Your task to perform on an android device: toggle pop-ups in chrome Image 0: 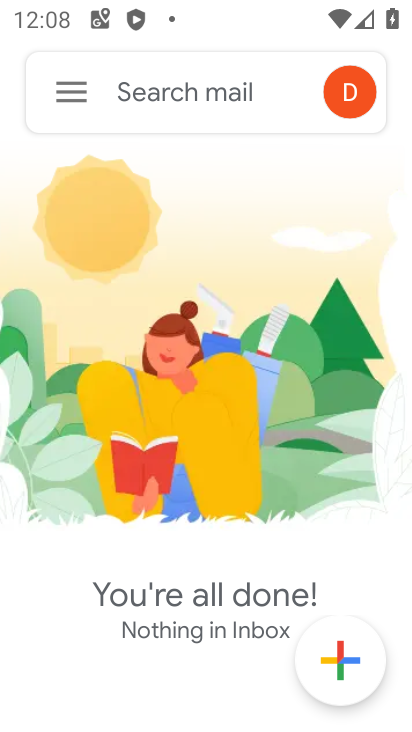
Step 0: press back button
Your task to perform on an android device: toggle pop-ups in chrome Image 1: 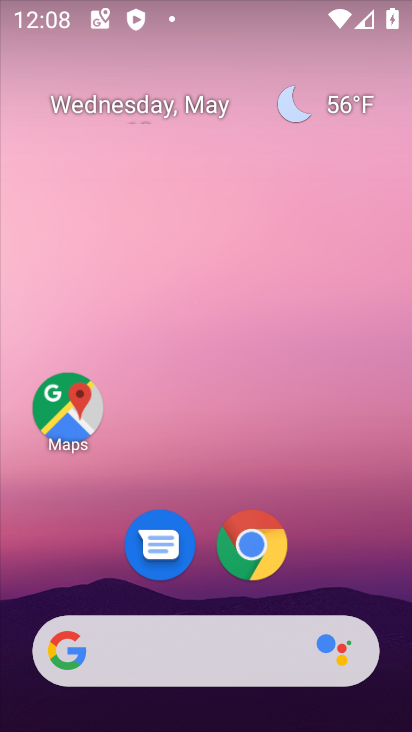
Step 1: click (255, 546)
Your task to perform on an android device: toggle pop-ups in chrome Image 2: 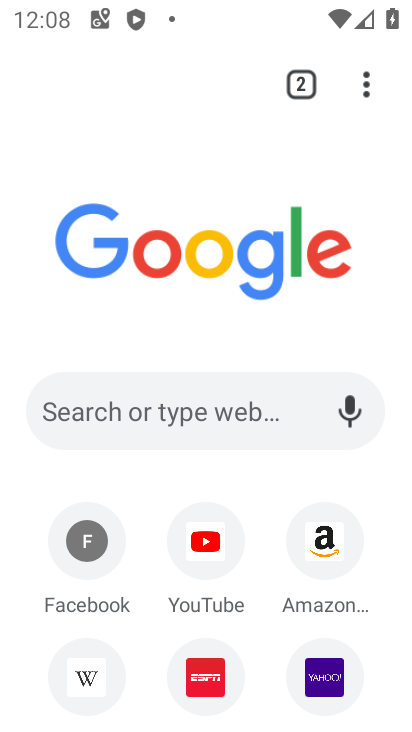
Step 2: click (366, 81)
Your task to perform on an android device: toggle pop-ups in chrome Image 3: 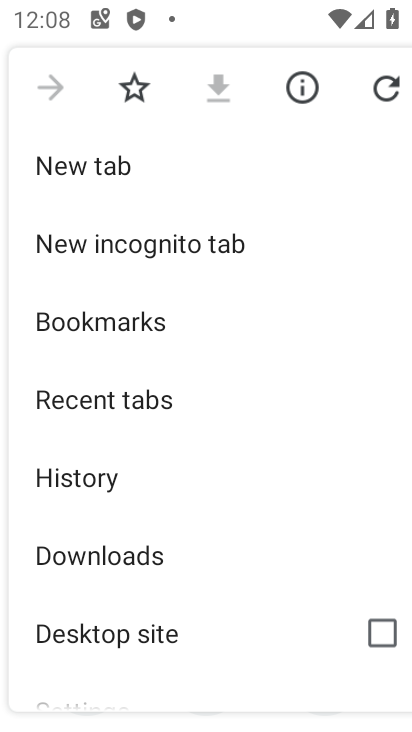
Step 3: drag from (147, 481) to (202, 381)
Your task to perform on an android device: toggle pop-ups in chrome Image 4: 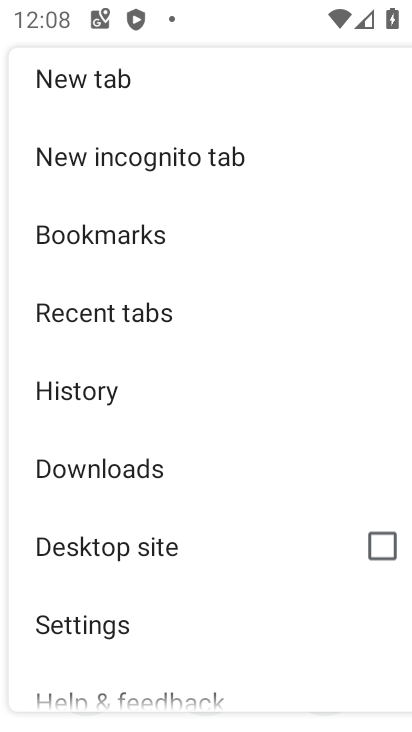
Step 4: drag from (123, 511) to (170, 361)
Your task to perform on an android device: toggle pop-ups in chrome Image 5: 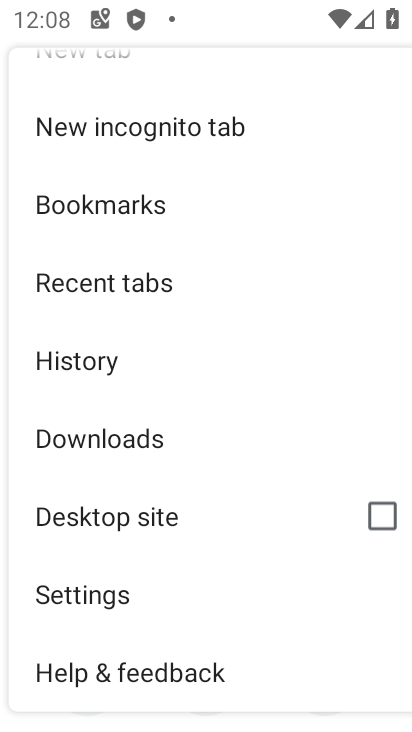
Step 5: click (85, 596)
Your task to perform on an android device: toggle pop-ups in chrome Image 6: 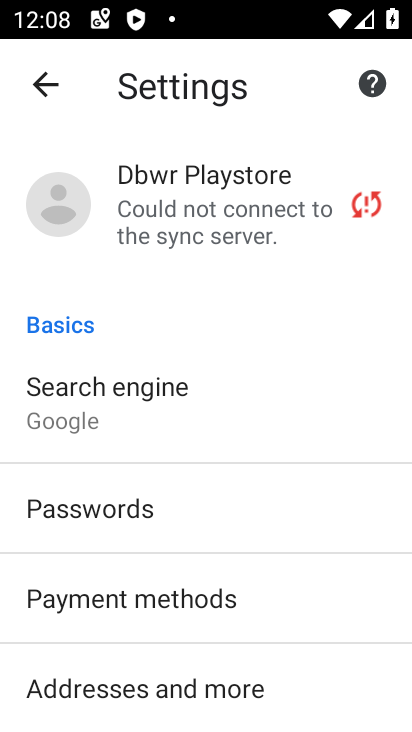
Step 6: drag from (168, 583) to (223, 354)
Your task to perform on an android device: toggle pop-ups in chrome Image 7: 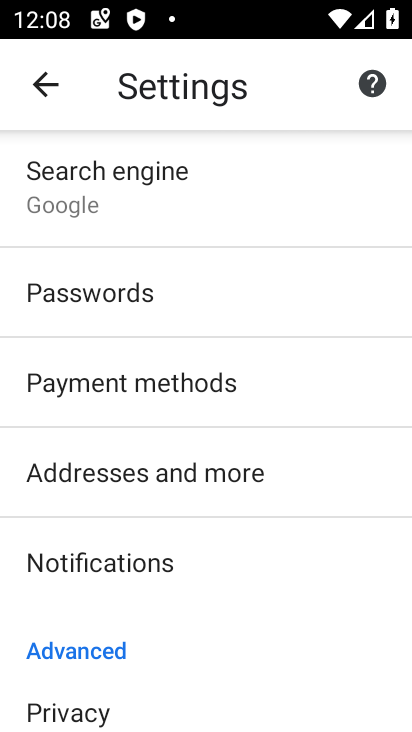
Step 7: drag from (189, 604) to (250, 382)
Your task to perform on an android device: toggle pop-ups in chrome Image 8: 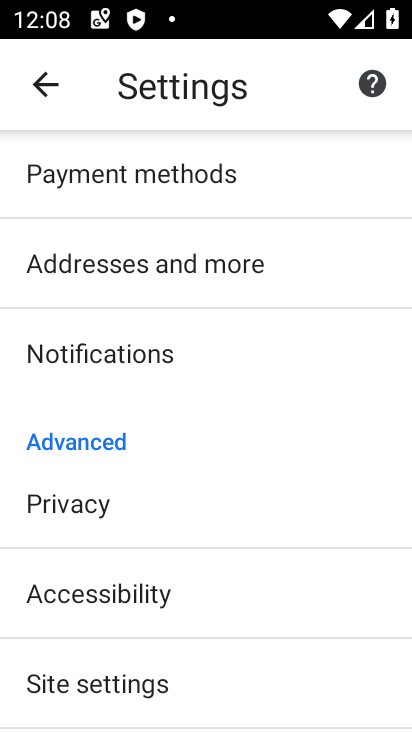
Step 8: drag from (109, 616) to (176, 439)
Your task to perform on an android device: toggle pop-ups in chrome Image 9: 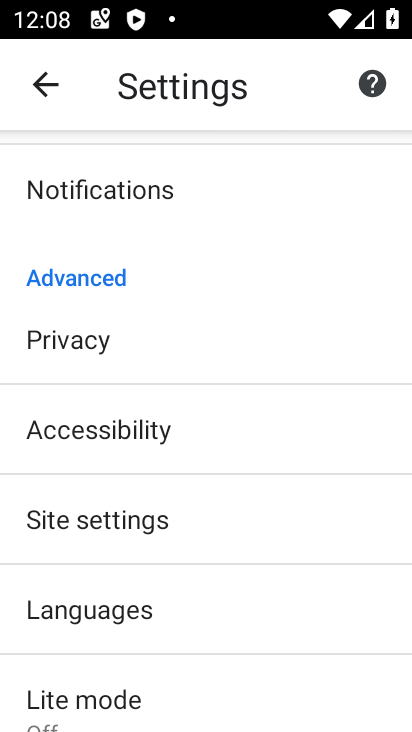
Step 9: drag from (128, 564) to (219, 438)
Your task to perform on an android device: toggle pop-ups in chrome Image 10: 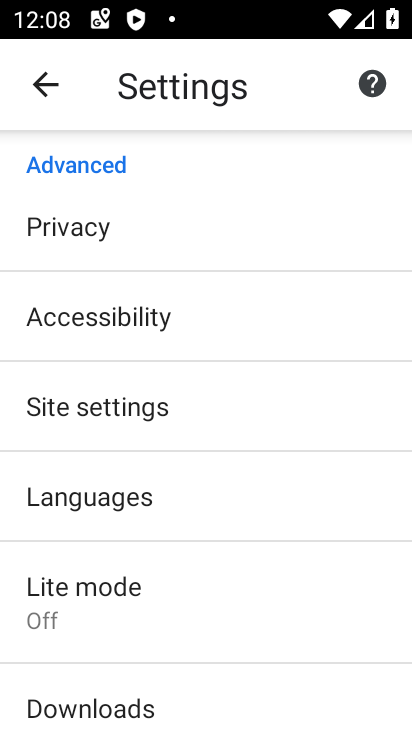
Step 10: drag from (123, 607) to (161, 538)
Your task to perform on an android device: toggle pop-ups in chrome Image 11: 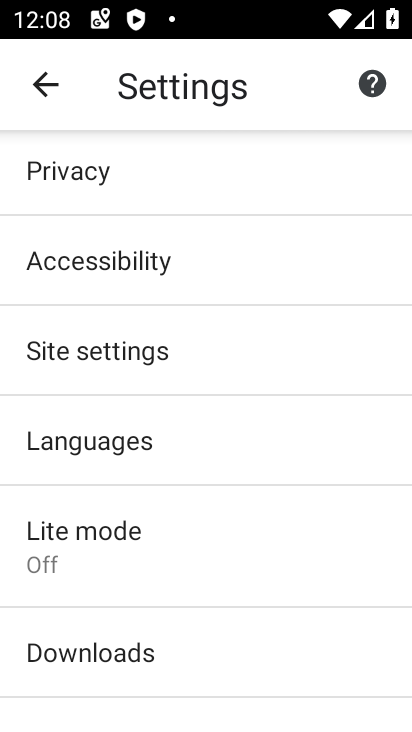
Step 11: click (101, 356)
Your task to perform on an android device: toggle pop-ups in chrome Image 12: 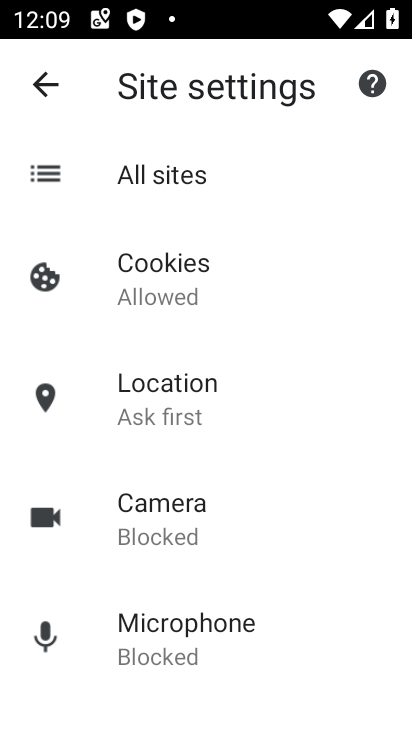
Step 12: drag from (177, 600) to (223, 437)
Your task to perform on an android device: toggle pop-ups in chrome Image 13: 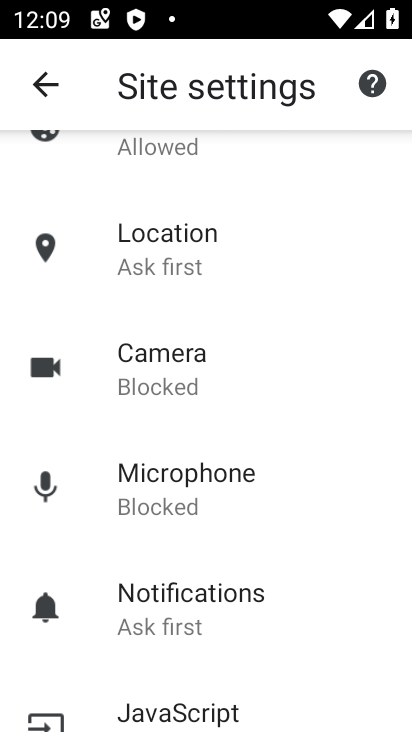
Step 13: drag from (214, 570) to (275, 473)
Your task to perform on an android device: toggle pop-ups in chrome Image 14: 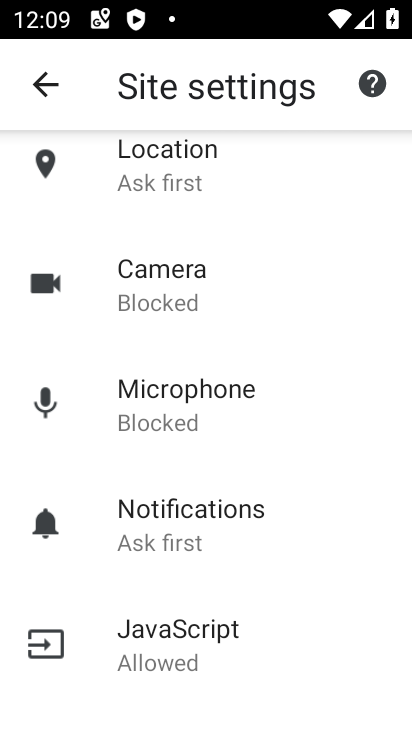
Step 14: drag from (213, 582) to (272, 452)
Your task to perform on an android device: toggle pop-ups in chrome Image 15: 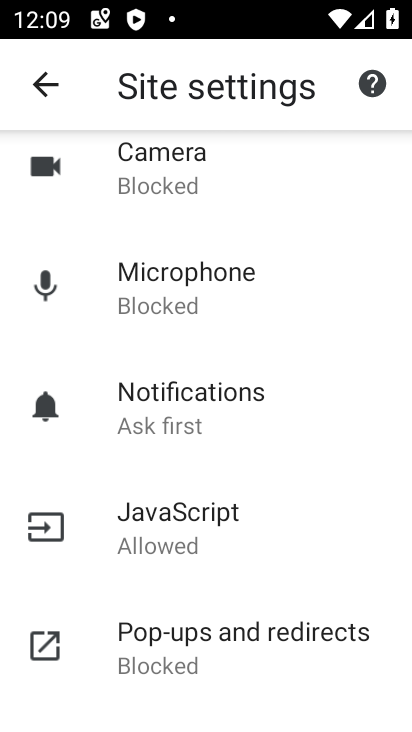
Step 15: drag from (227, 594) to (285, 506)
Your task to perform on an android device: toggle pop-ups in chrome Image 16: 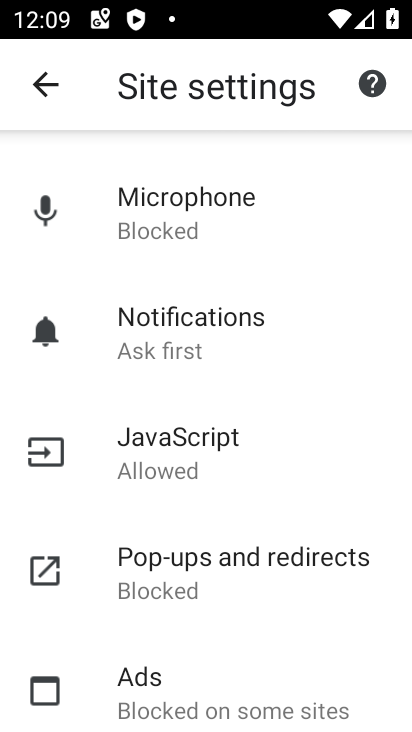
Step 16: click (243, 553)
Your task to perform on an android device: toggle pop-ups in chrome Image 17: 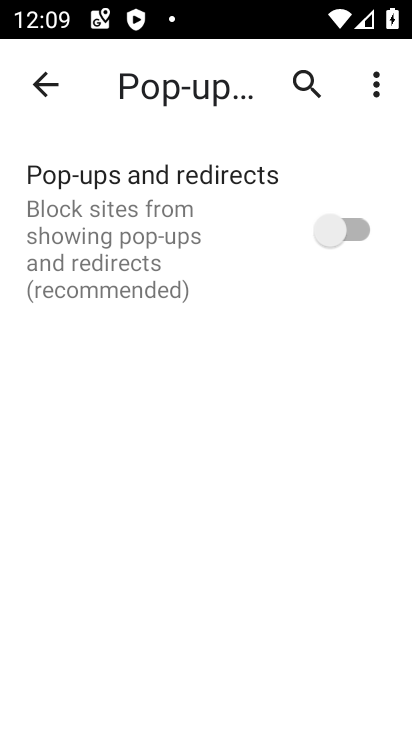
Step 17: click (329, 234)
Your task to perform on an android device: toggle pop-ups in chrome Image 18: 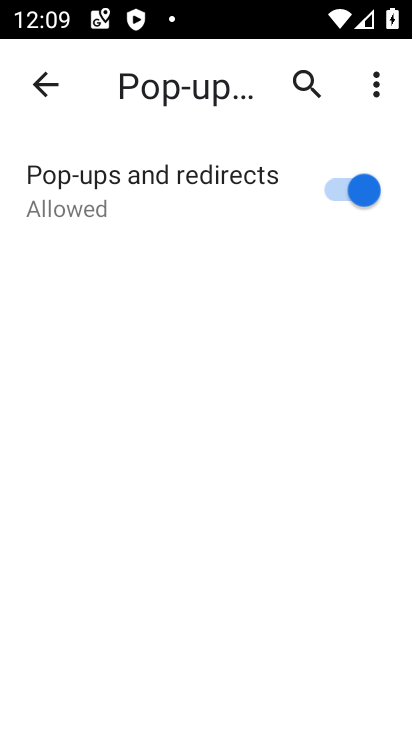
Step 18: task complete